Your task to perform on an android device: allow cookies in the chrome app Image 0: 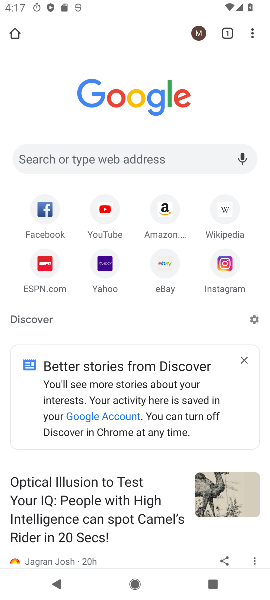
Step 0: click (254, 41)
Your task to perform on an android device: allow cookies in the chrome app Image 1: 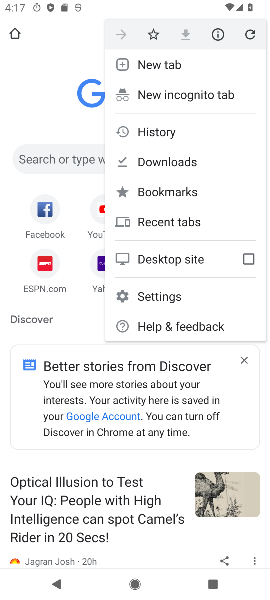
Step 1: click (172, 296)
Your task to perform on an android device: allow cookies in the chrome app Image 2: 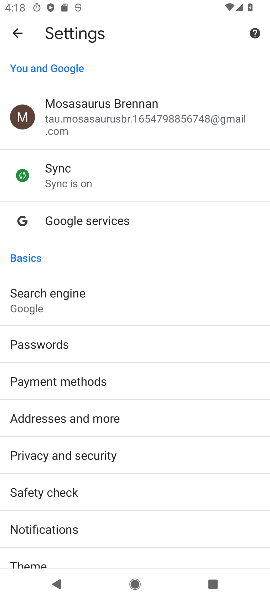
Step 2: drag from (79, 500) to (79, 104)
Your task to perform on an android device: allow cookies in the chrome app Image 3: 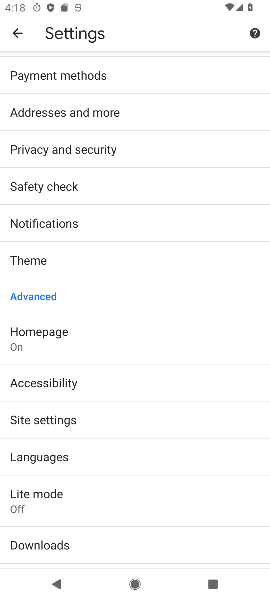
Step 3: click (130, 424)
Your task to perform on an android device: allow cookies in the chrome app Image 4: 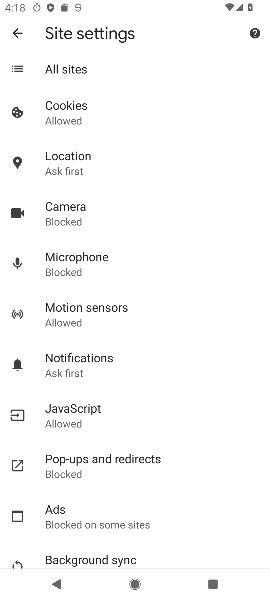
Step 4: click (97, 118)
Your task to perform on an android device: allow cookies in the chrome app Image 5: 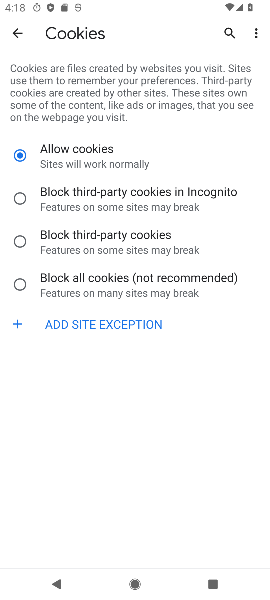
Step 5: task complete